Your task to perform on an android device: turn notification dots off Image 0: 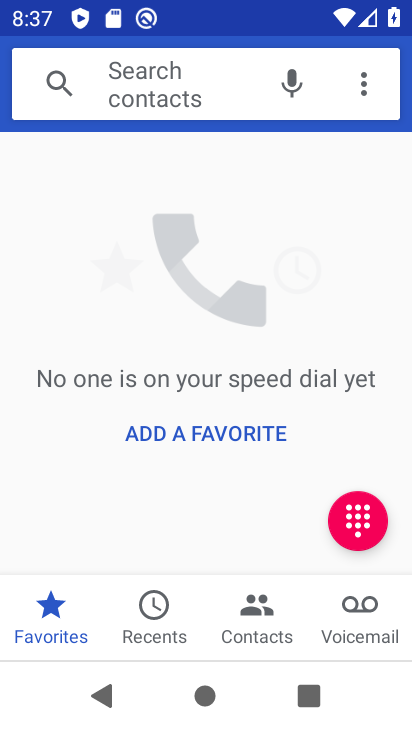
Step 0: press home button
Your task to perform on an android device: turn notification dots off Image 1: 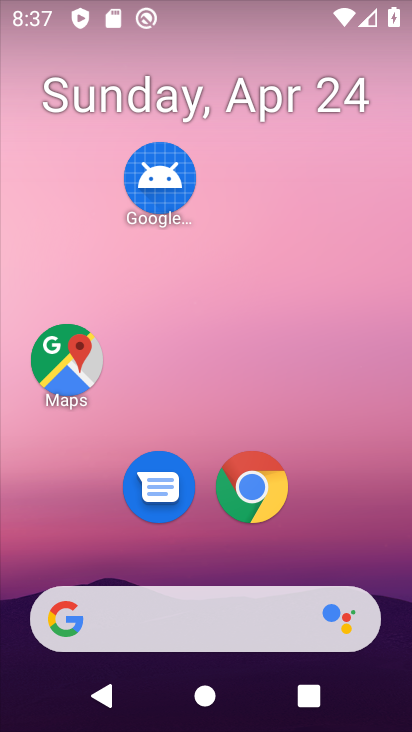
Step 1: click (275, 479)
Your task to perform on an android device: turn notification dots off Image 2: 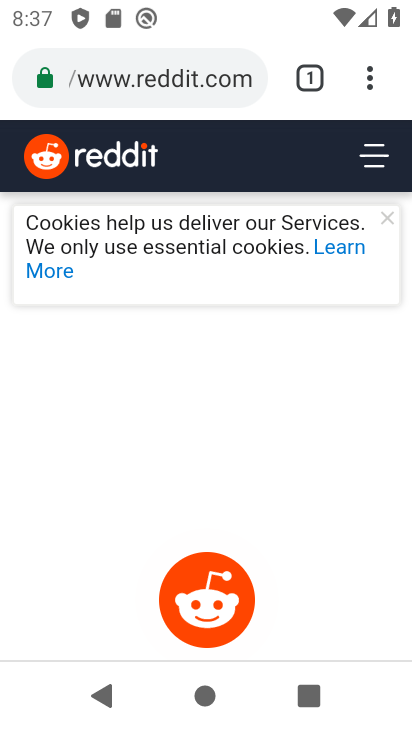
Step 2: drag from (369, 75) to (119, 546)
Your task to perform on an android device: turn notification dots off Image 3: 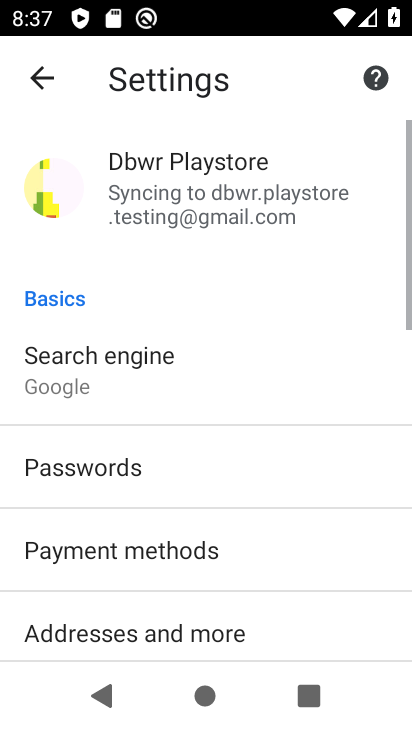
Step 3: drag from (125, 506) to (130, 240)
Your task to perform on an android device: turn notification dots off Image 4: 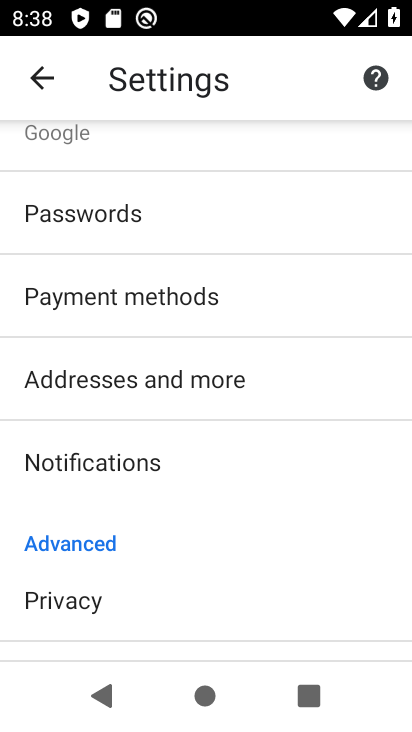
Step 4: click (73, 455)
Your task to perform on an android device: turn notification dots off Image 5: 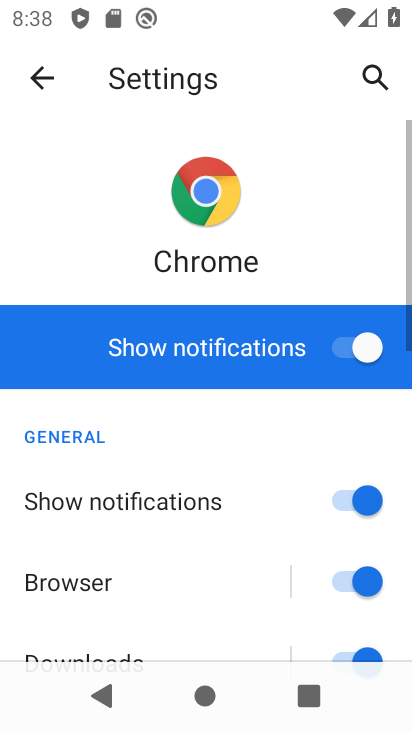
Step 5: drag from (209, 643) to (214, 261)
Your task to perform on an android device: turn notification dots off Image 6: 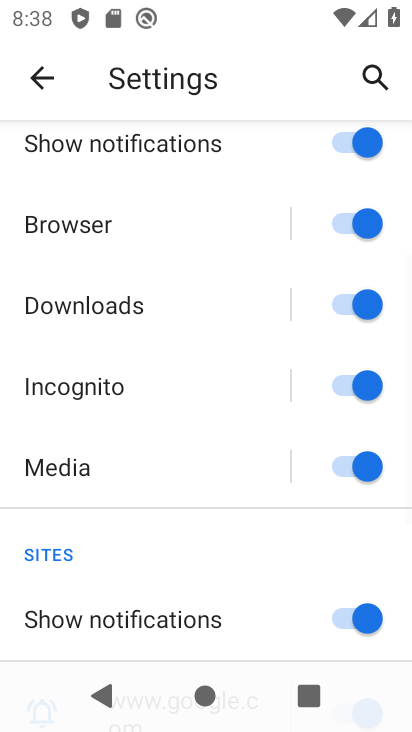
Step 6: drag from (187, 603) to (187, 136)
Your task to perform on an android device: turn notification dots off Image 7: 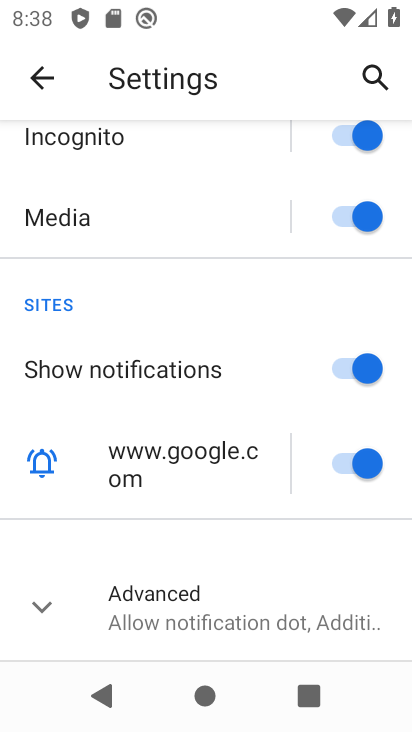
Step 7: click (145, 640)
Your task to perform on an android device: turn notification dots off Image 8: 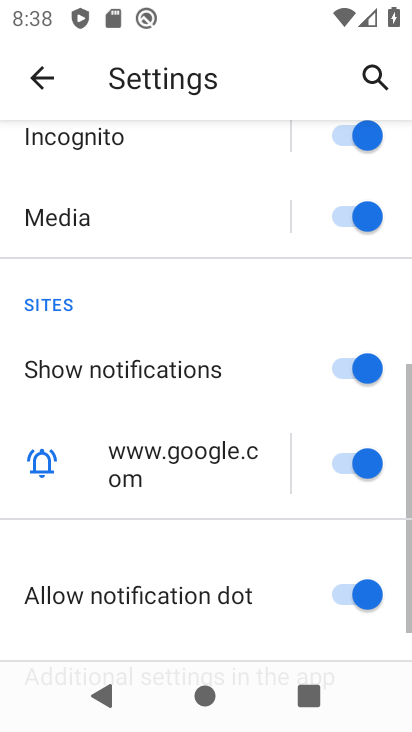
Step 8: drag from (146, 610) to (163, 449)
Your task to perform on an android device: turn notification dots off Image 9: 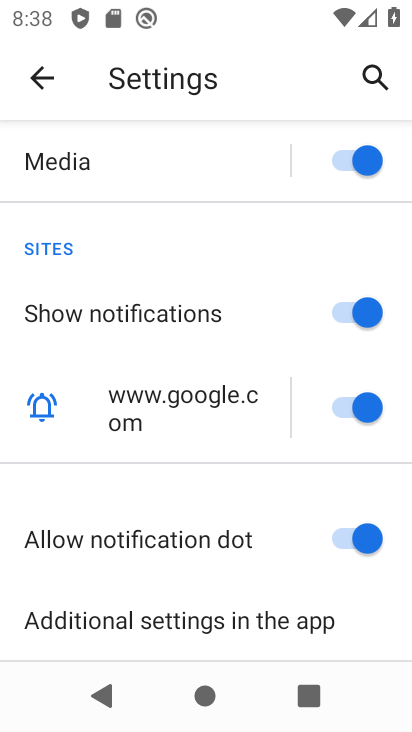
Step 9: click (362, 546)
Your task to perform on an android device: turn notification dots off Image 10: 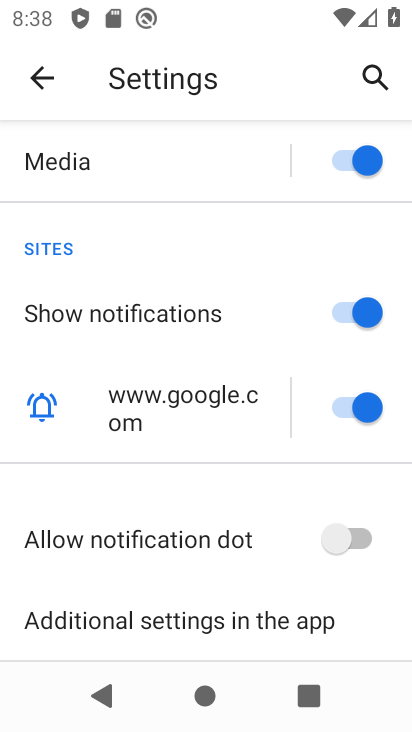
Step 10: task complete